Your task to perform on an android device: turn on location history Image 0: 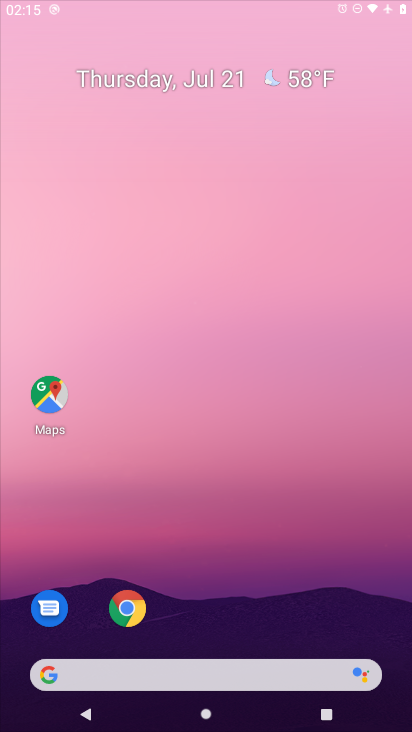
Step 0: press home button
Your task to perform on an android device: turn on location history Image 1: 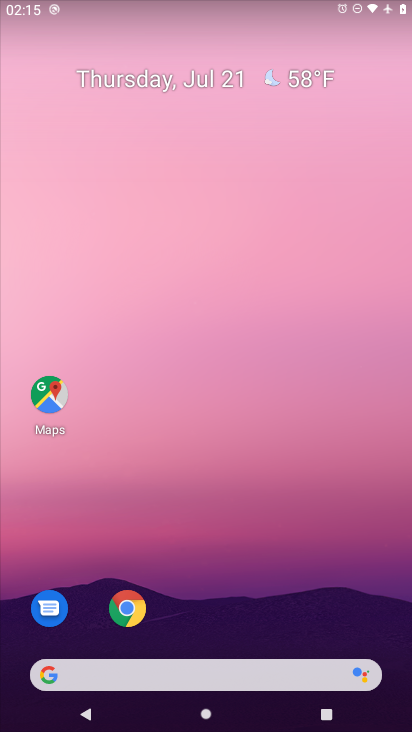
Step 1: drag from (231, 565) to (242, 93)
Your task to perform on an android device: turn on location history Image 2: 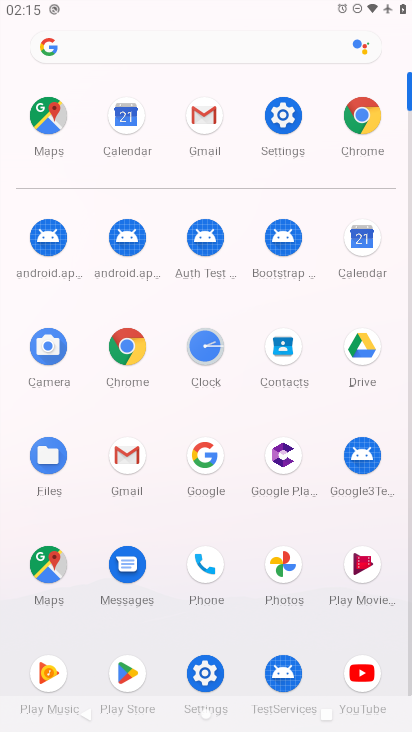
Step 2: click (281, 113)
Your task to perform on an android device: turn on location history Image 3: 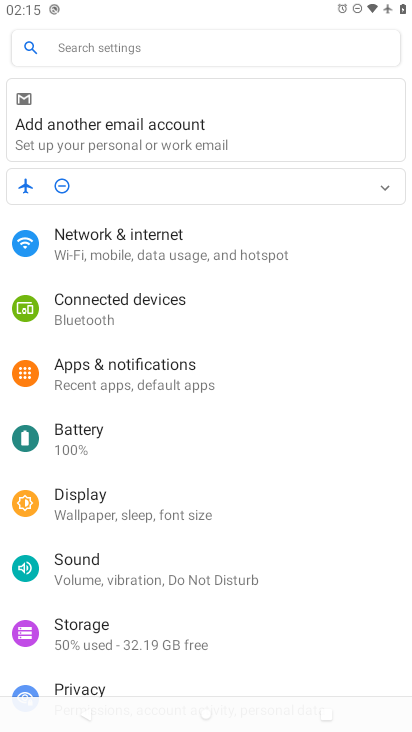
Step 3: drag from (302, 607) to (290, 146)
Your task to perform on an android device: turn on location history Image 4: 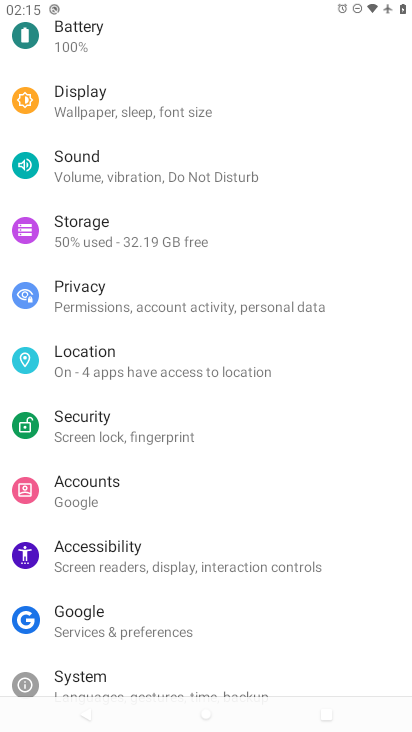
Step 4: click (74, 354)
Your task to perform on an android device: turn on location history Image 5: 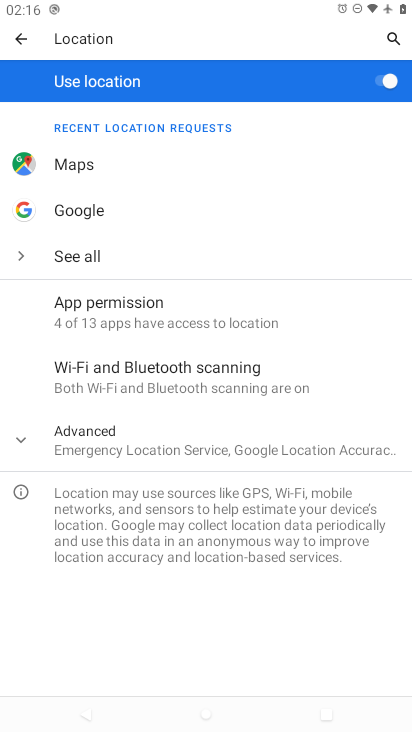
Step 5: click (96, 444)
Your task to perform on an android device: turn on location history Image 6: 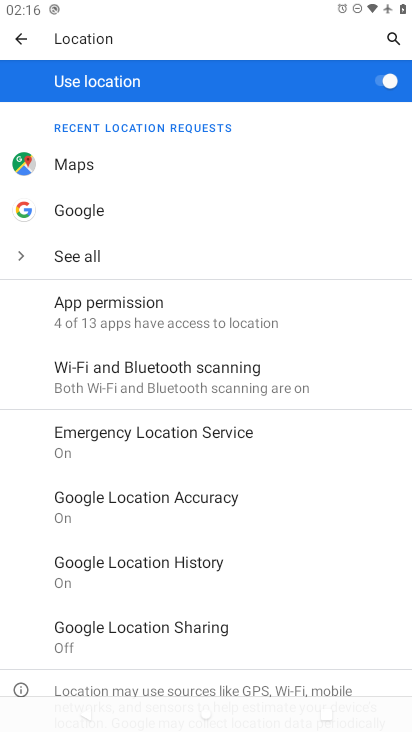
Step 6: click (181, 566)
Your task to perform on an android device: turn on location history Image 7: 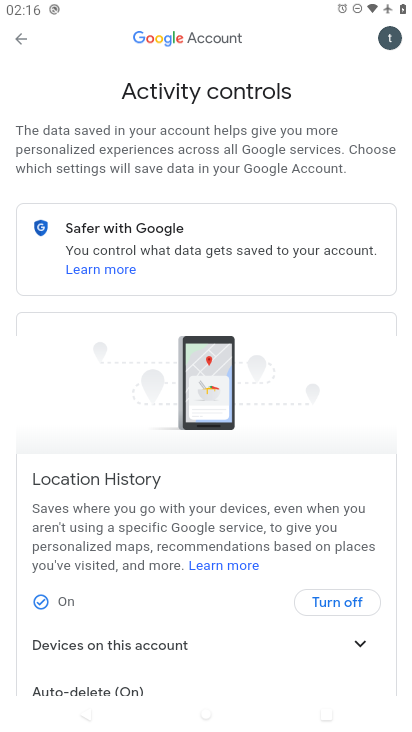
Step 7: task complete